Your task to perform on an android device: Go to battery settings Image 0: 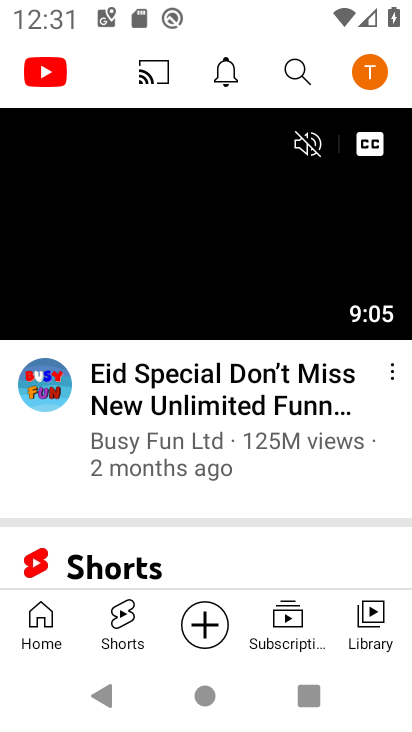
Step 0: press home button
Your task to perform on an android device: Go to battery settings Image 1: 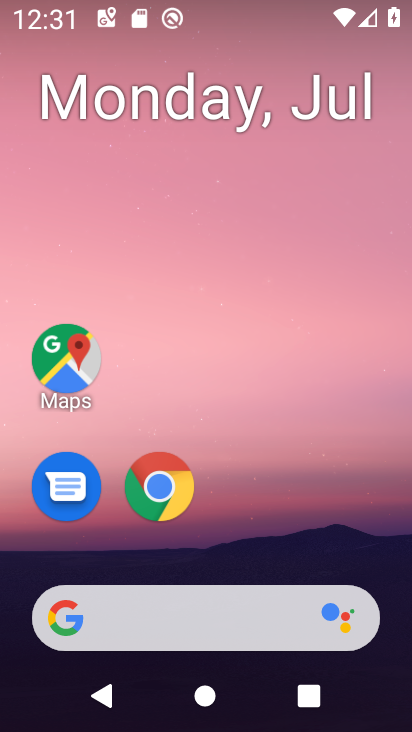
Step 1: drag from (360, 510) to (336, 75)
Your task to perform on an android device: Go to battery settings Image 2: 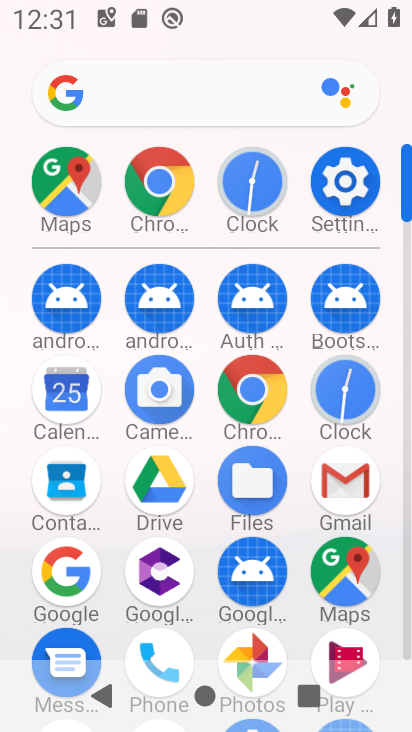
Step 2: click (355, 191)
Your task to perform on an android device: Go to battery settings Image 3: 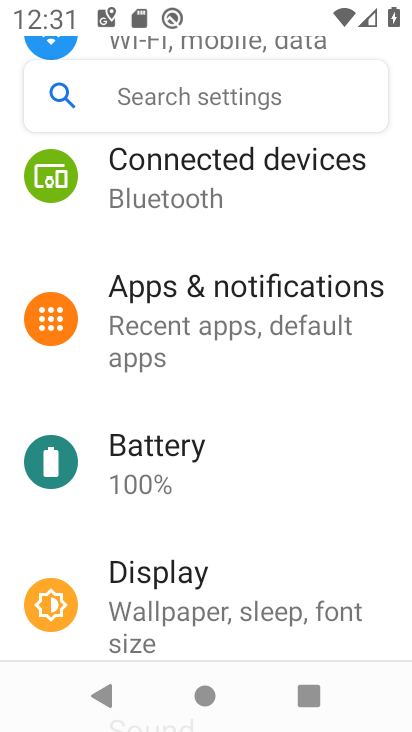
Step 3: drag from (350, 184) to (369, 311)
Your task to perform on an android device: Go to battery settings Image 4: 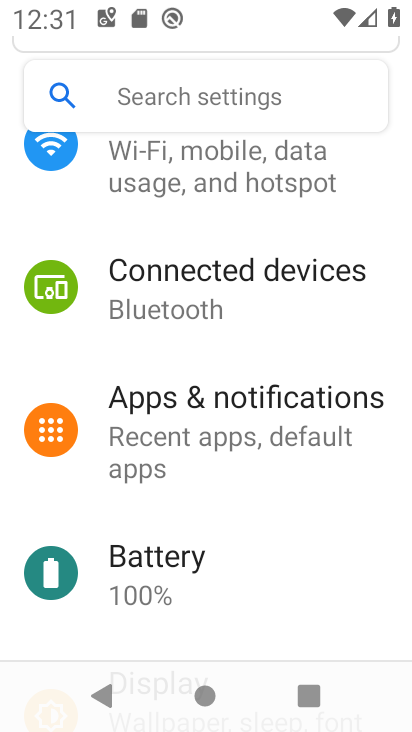
Step 4: drag from (369, 188) to (358, 334)
Your task to perform on an android device: Go to battery settings Image 5: 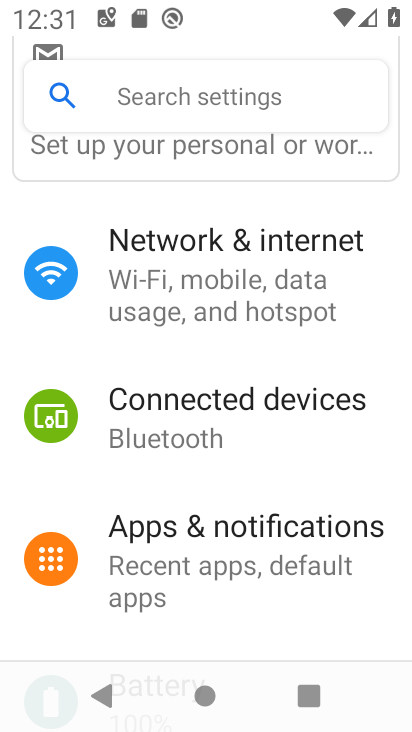
Step 5: drag from (384, 212) to (365, 459)
Your task to perform on an android device: Go to battery settings Image 6: 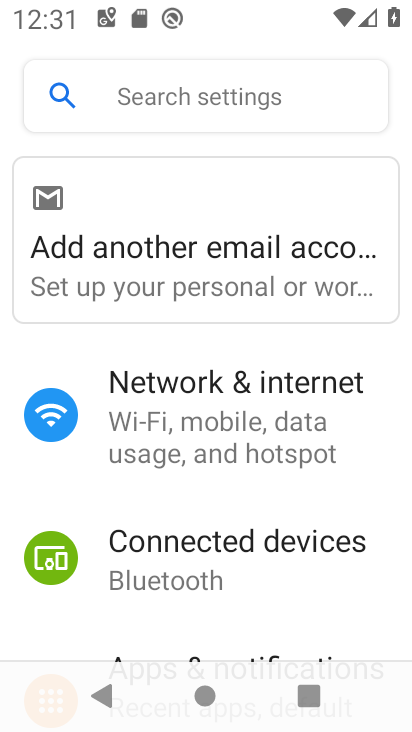
Step 6: drag from (365, 492) to (359, 368)
Your task to perform on an android device: Go to battery settings Image 7: 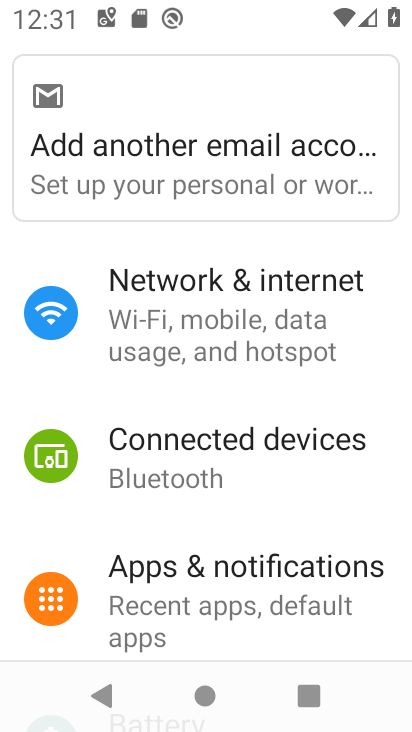
Step 7: drag from (355, 521) to (356, 387)
Your task to perform on an android device: Go to battery settings Image 8: 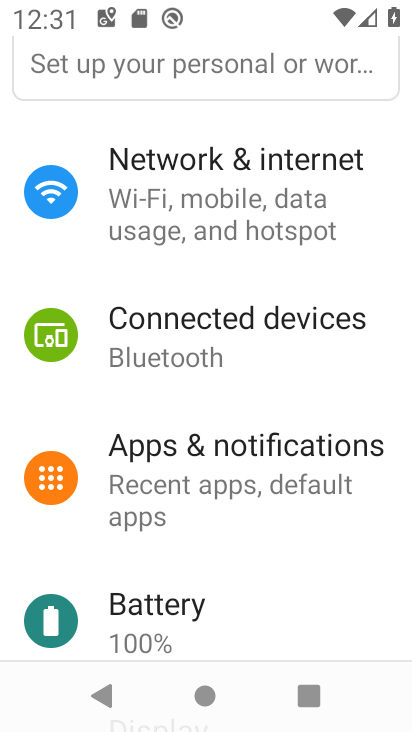
Step 8: drag from (358, 524) to (359, 411)
Your task to perform on an android device: Go to battery settings Image 9: 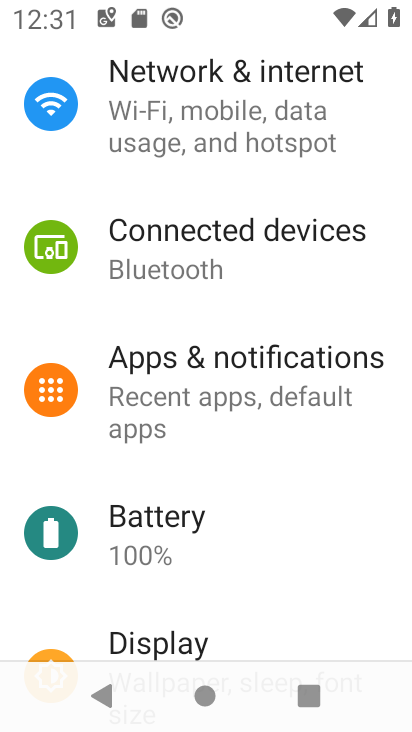
Step 9: drag from (342, 531) to (345, 390)
Your task to perform on an android device: Go to battery settings Image 10: 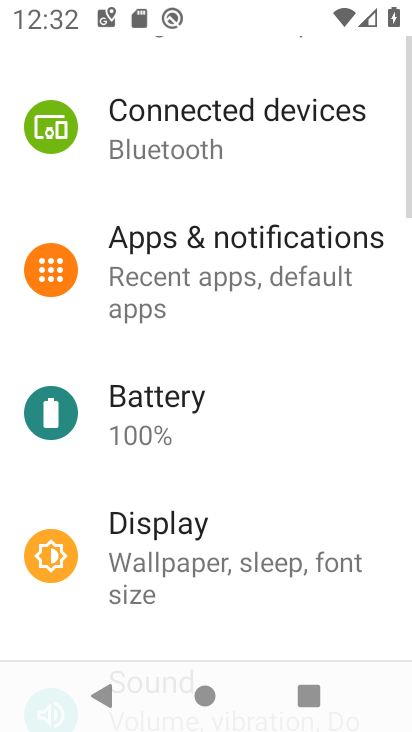
Step 10: drag from (320, 530) to (294, 366)
Your task to perform on an android device: Go to battery settings Image 11: 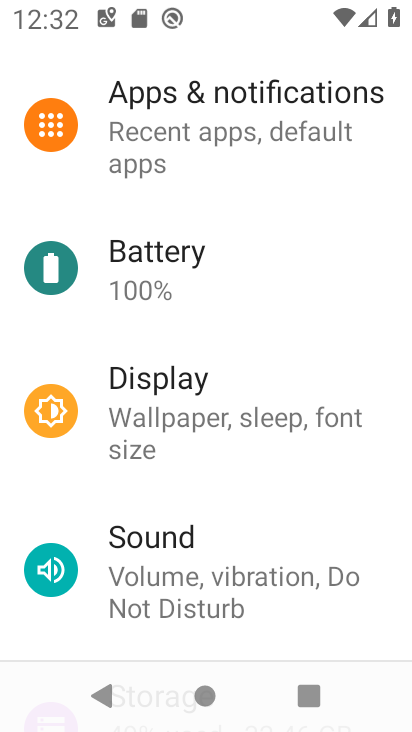
Step 11: click (250, 270)
Your task to perform on an android device: Go to battery settings Image 12: 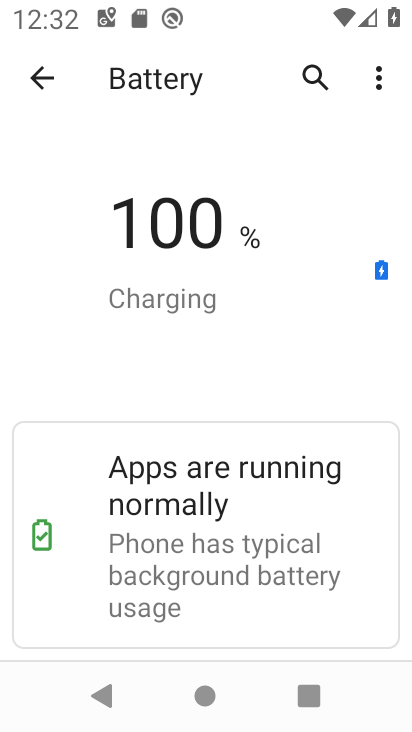
Step 12: task complete